Your task to perform on an android device: Is it going to rain this weekend? Image 0: 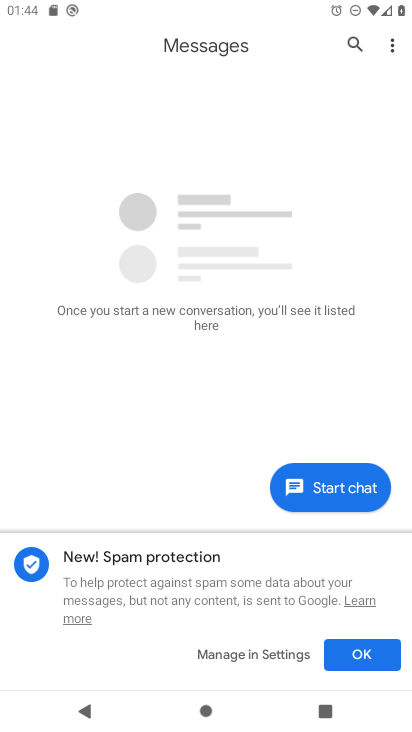
Step 0: press home button
Your task to perform on an android device: Is it going to rain this weekend? Image 1: 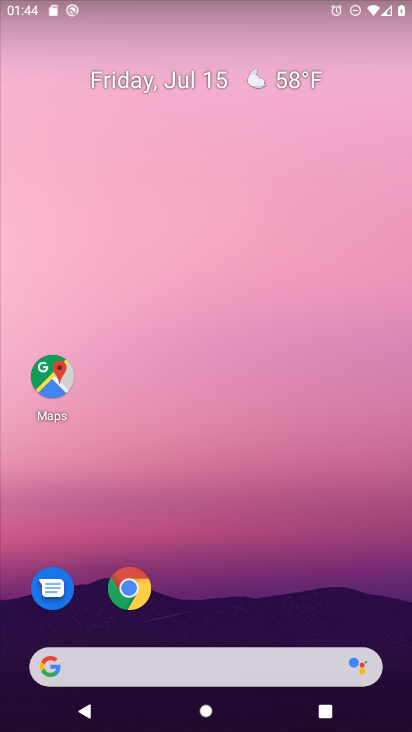
Step 1: click (290, 81)
Your task to perform on an android device: Is it going to rain this weekend? Image 2: 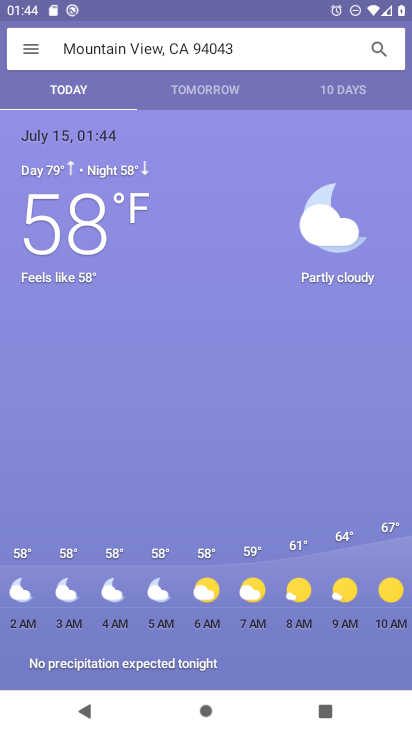
Step 2: click (333, 96)
Your task to perform on an android device: Is it going to rain this weekend? Image 3: 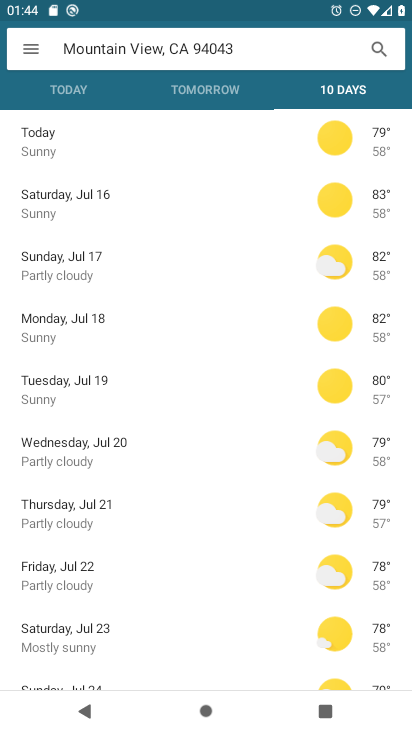
Step 3: task complete